Your task to perform on an android device: Go to display settings Image 0: 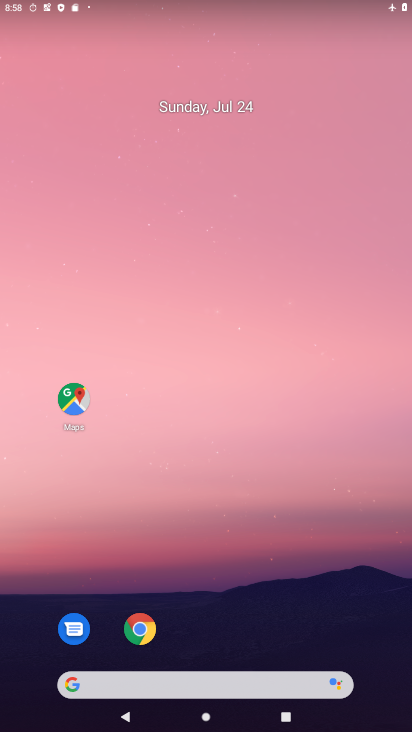
Step 0: drag from (194, 709) to (268, 196)
Your task to perform on an android device: Go to display settings Image 1: 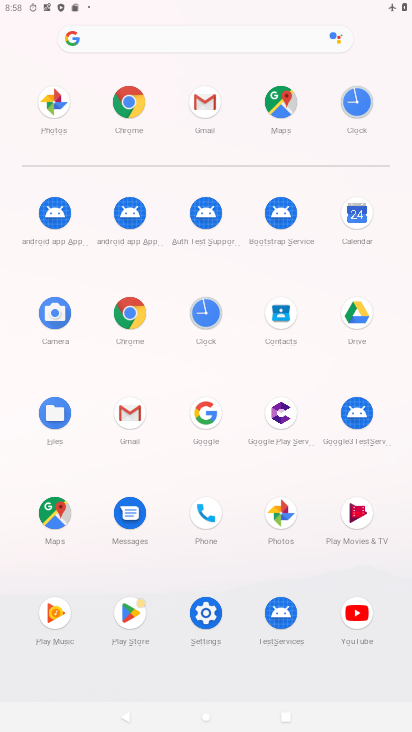
Step 1: click (201, 621)
Your task to perform on an android device: Go to display settings Image 2: 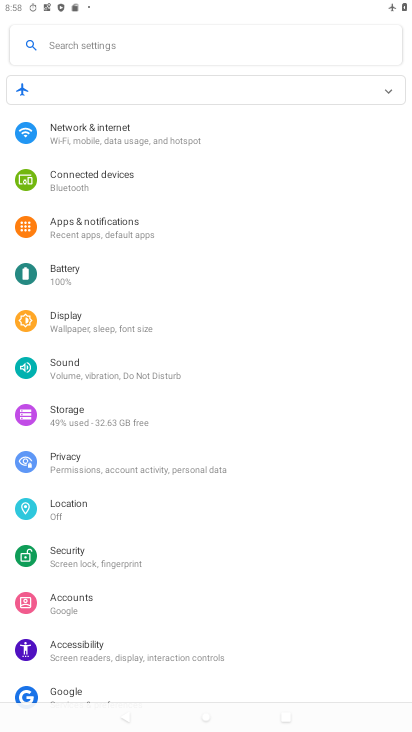
Step 2: click (87, 301)
Your task to perform on an android device: Go to display settings Image 3: 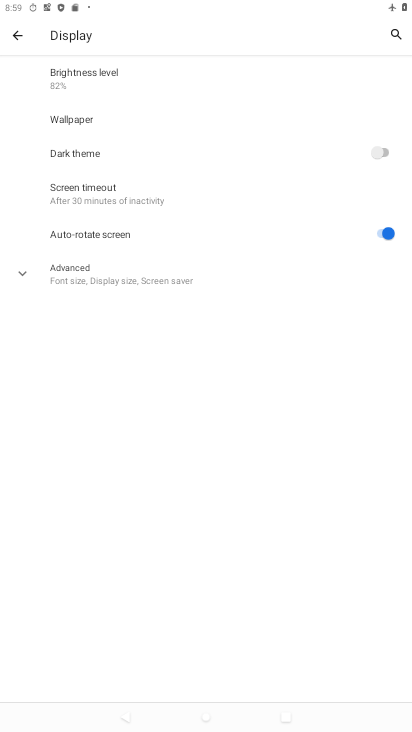
Step 3: click (93, 287)
Your task to perform on an android device: Go to display settings Image 4: 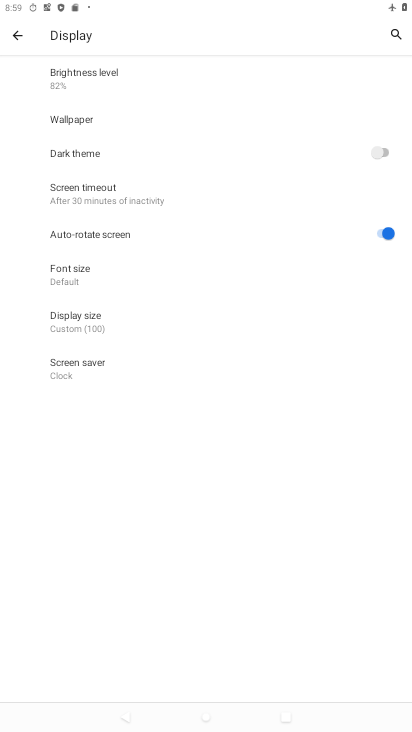
Step 4: task complete